Your task to perform on an android device: Open Amazon Image 0: 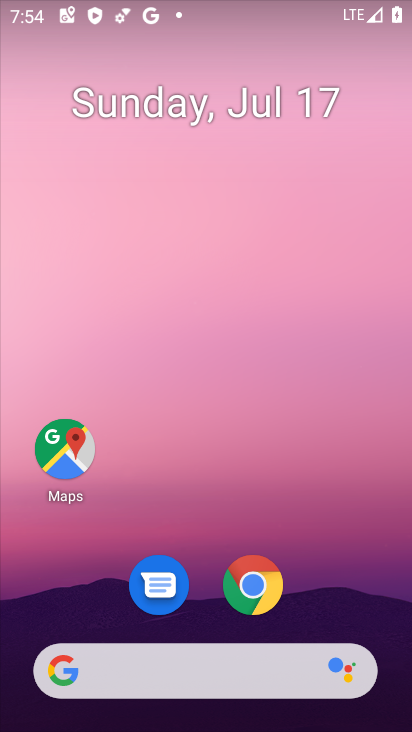
Step 0: click (259, 590)
Your task to perform on an android device: Open Amazon Image 1: 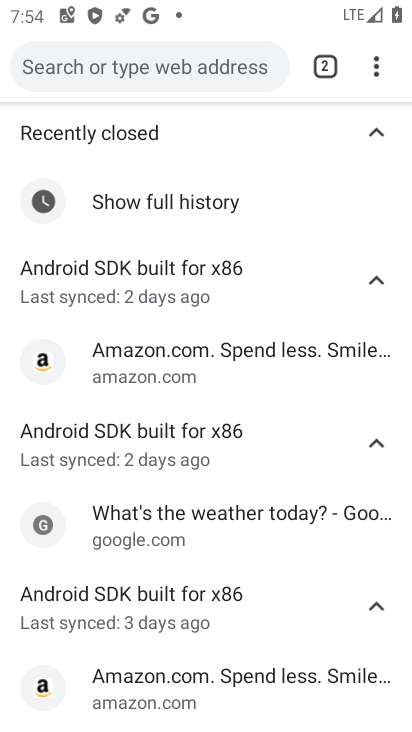
Step 1: click (377, 67)
Your task to perform on an android device: Open Amazon Image 2: 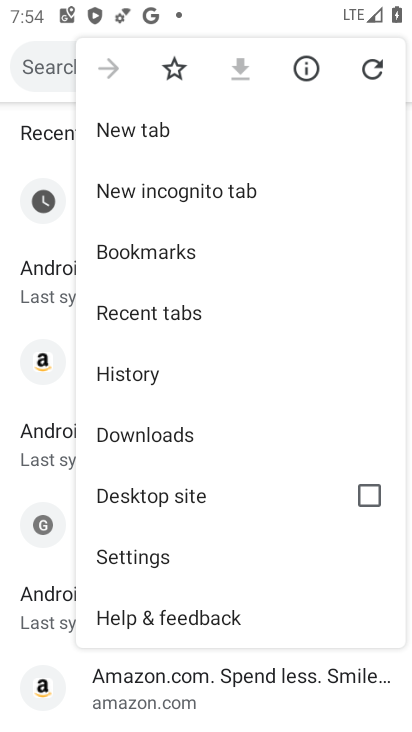
Step 2: click (239, 127)
Your task to perform on an android device: Open Amazon Image 3: 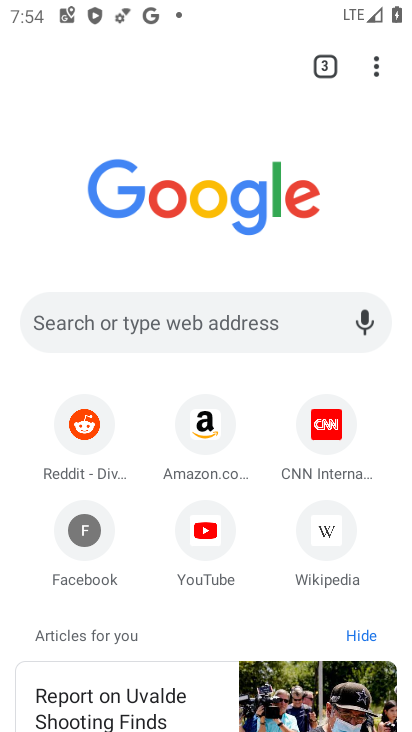
Step 3: click (218, 436)
Your task to perform on an android device: Open Amazon Image 4: 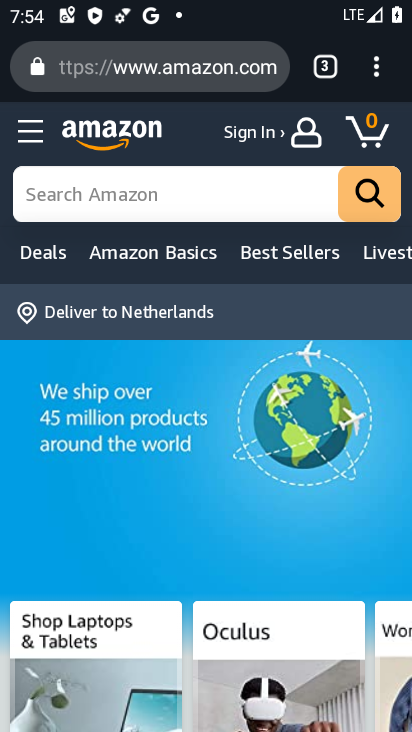
Step 4: task complete